Your task to perform on an android device: check the backup settings in the google photos Image 0: 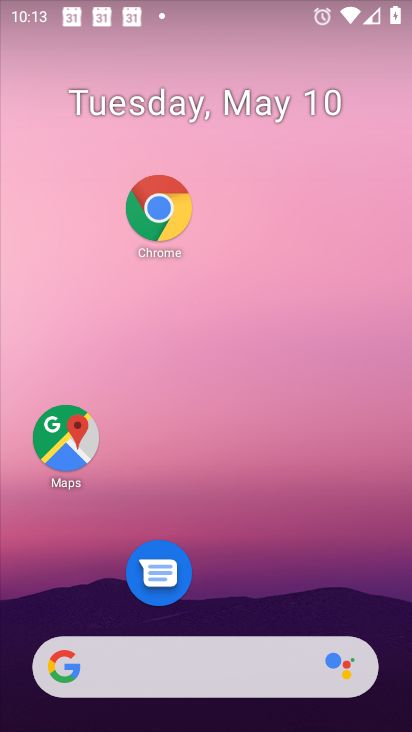
Step 0: drag from (206, 700) to (296, 149)
Your task to perform on an android device: check the backup settings in the google photos Image 1: 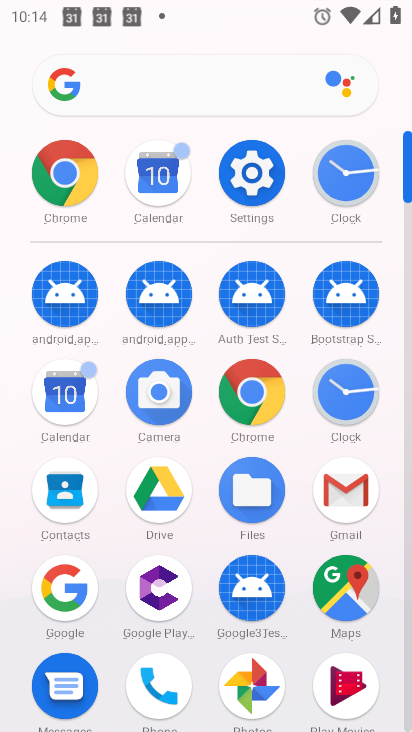
Step 1: click (242, 679)
Your task to perform on an android device: check the backup settings in the google photos Image 2: 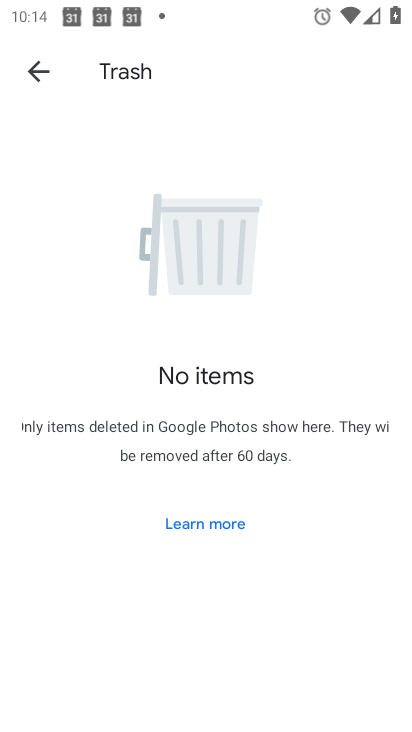
Step 2: click (40, 78)
Your task to perform on an android device: check the backup settings in the google photos Image 3: 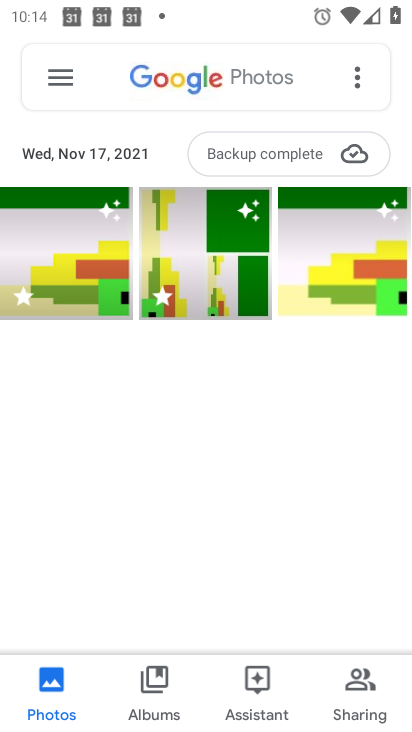
Step 3: click (45, 76)
Your task to perform on an android device: check the backup settings in the google photos Image 4: 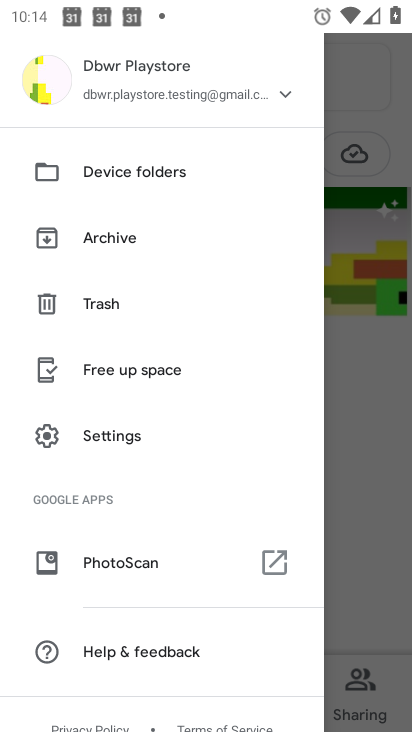
Step 4: click (113, 433)
Your task to perform on an android device: check the backup settings in the google photos Image 5: 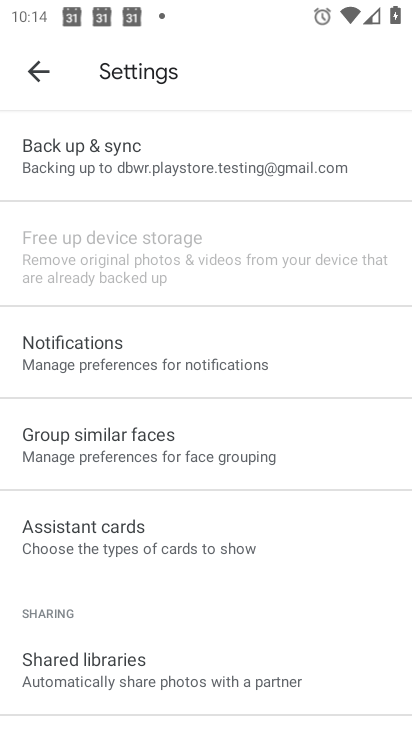
Step 5: click (117, 147)
Your task to perform on an android device: check the backup settings in the google photos Image 6: 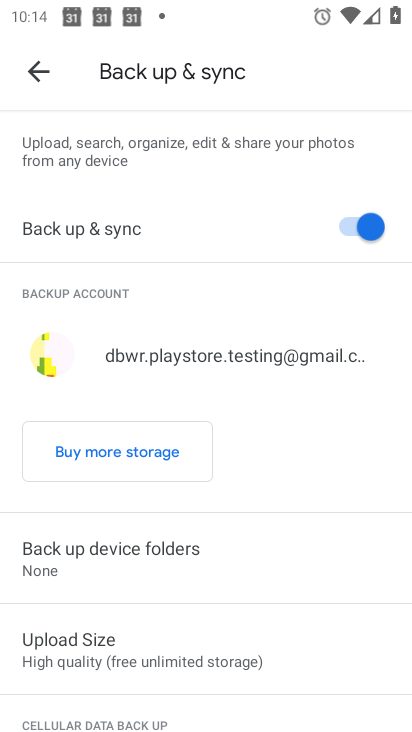
Step 6: task complete